Your task to perform on an android device: When is my next appointment? Image 0: 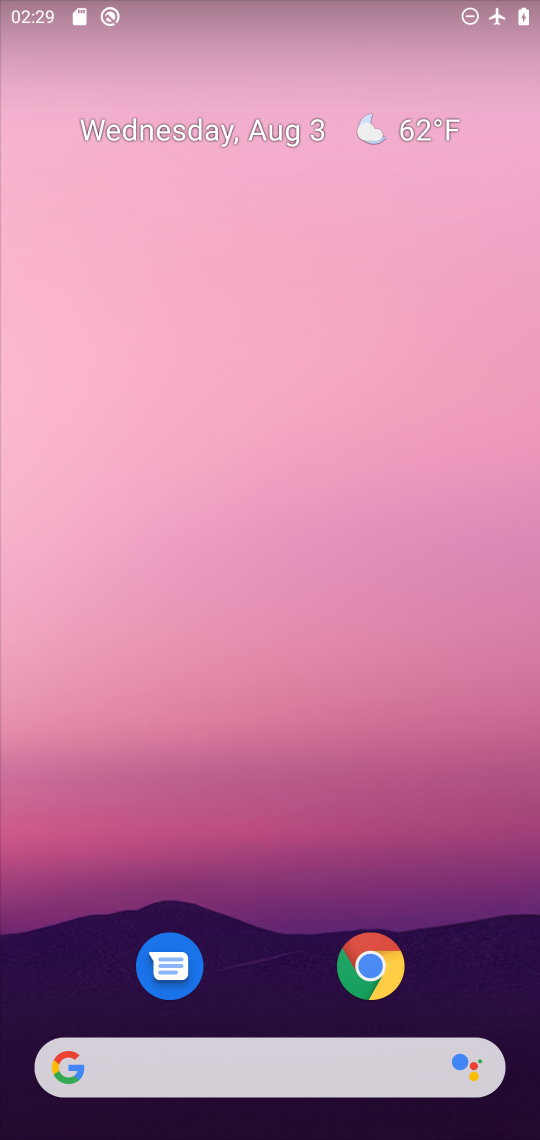
Step 0: drag from (249, 802) to (210, 292)
Your task to perform on an android device: When is my next appointment? Image 1: 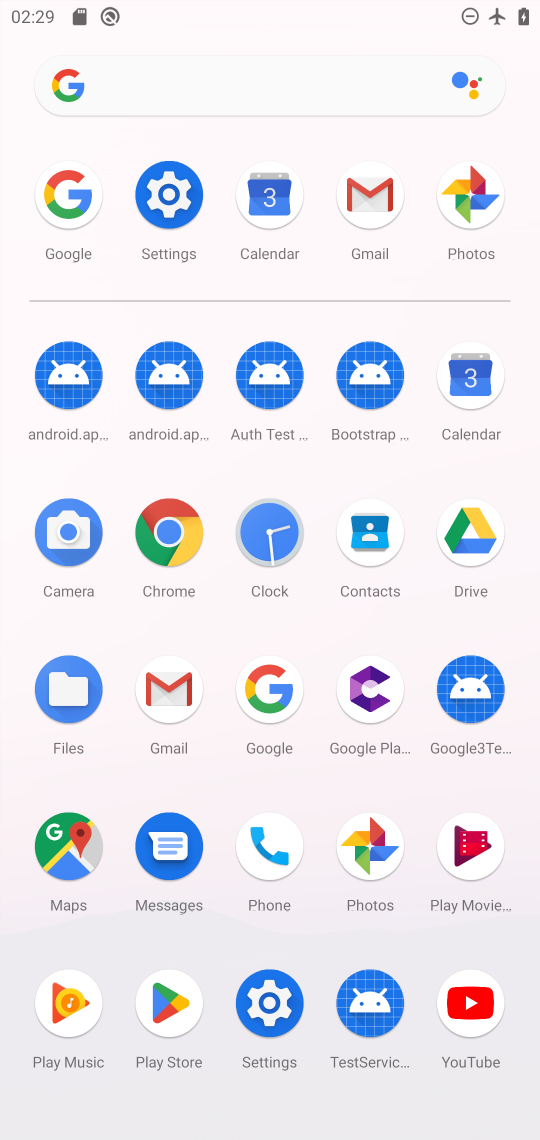
Step 1: click (262, 213)
Your task to perform on an android device: When is my next appointment? Image 2: 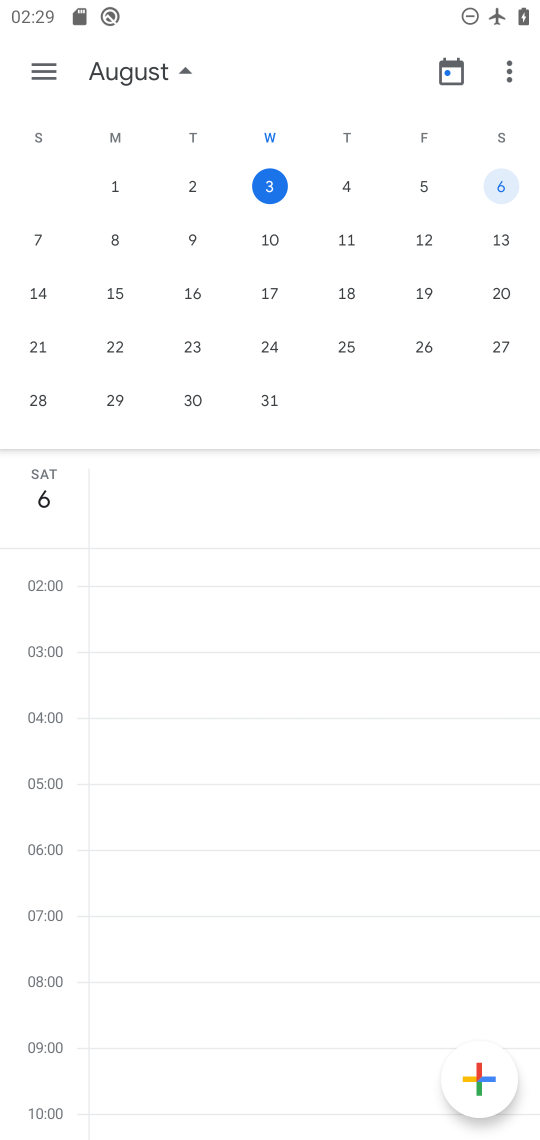
Step 2: click (505, 181)
Your task to perform on an android device: When is my next appointment? Image 3: 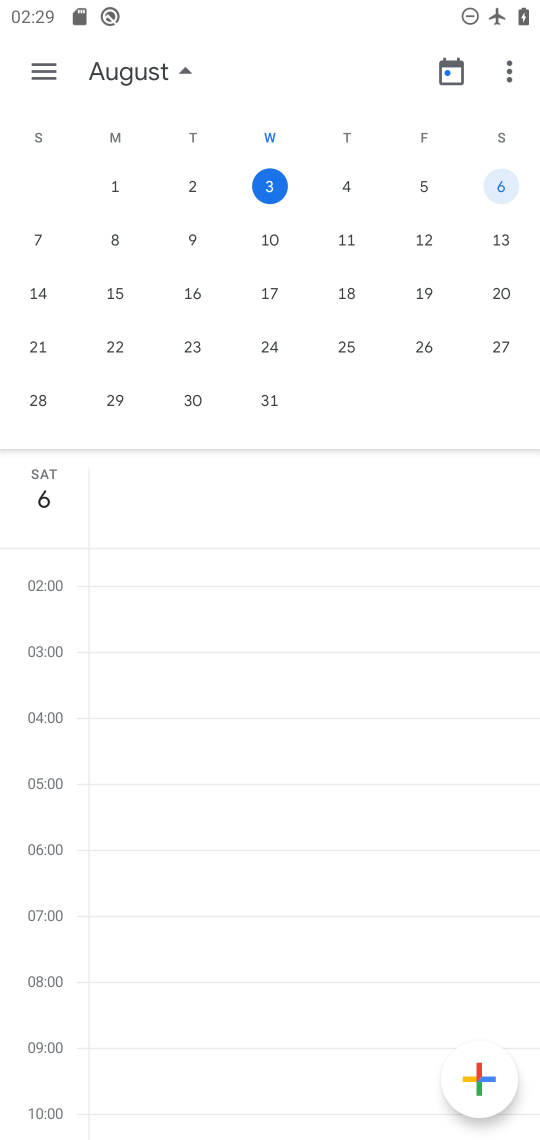
Step 3: click (37, 65)
Your task to perform on an android device: When is my next appointment? Image 4: 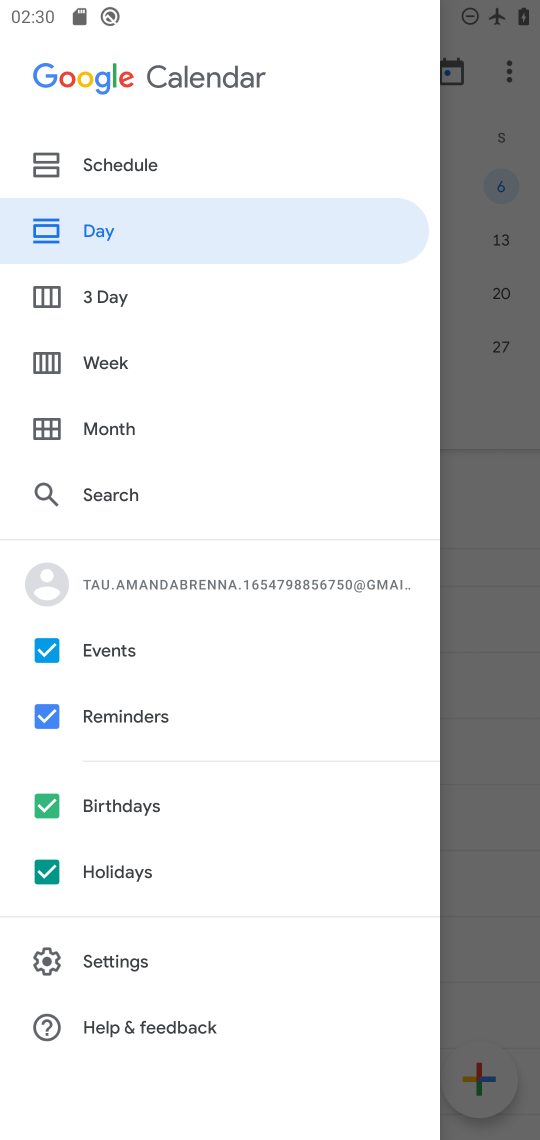
Step 4: task complete